Your task to perform on an android device: Add "logitech g903" to the cart on newegg.com, then select checkout. Image 0: 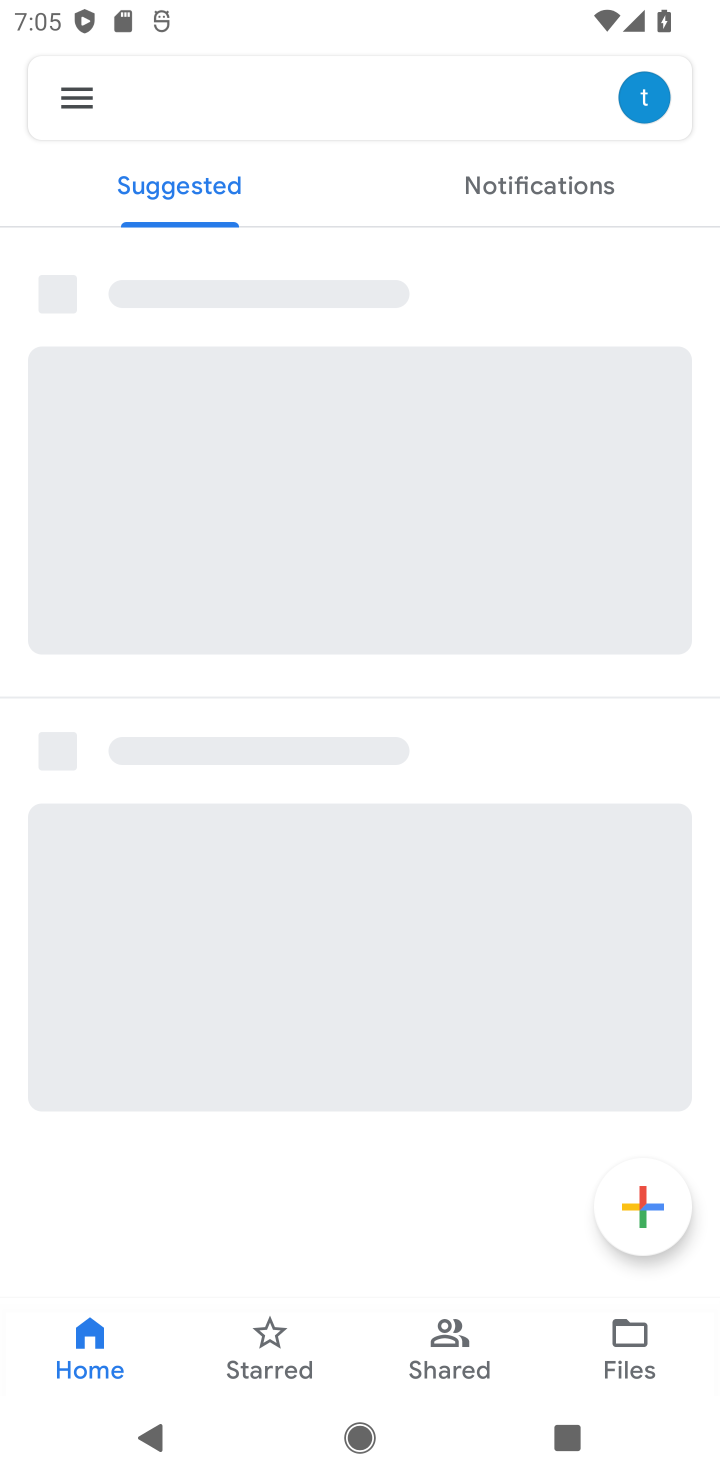
Step 0: press home button
Your task to perform on an android device: Add "logitech g903" to the cart on newegg.com, then select checkout. Image 1: 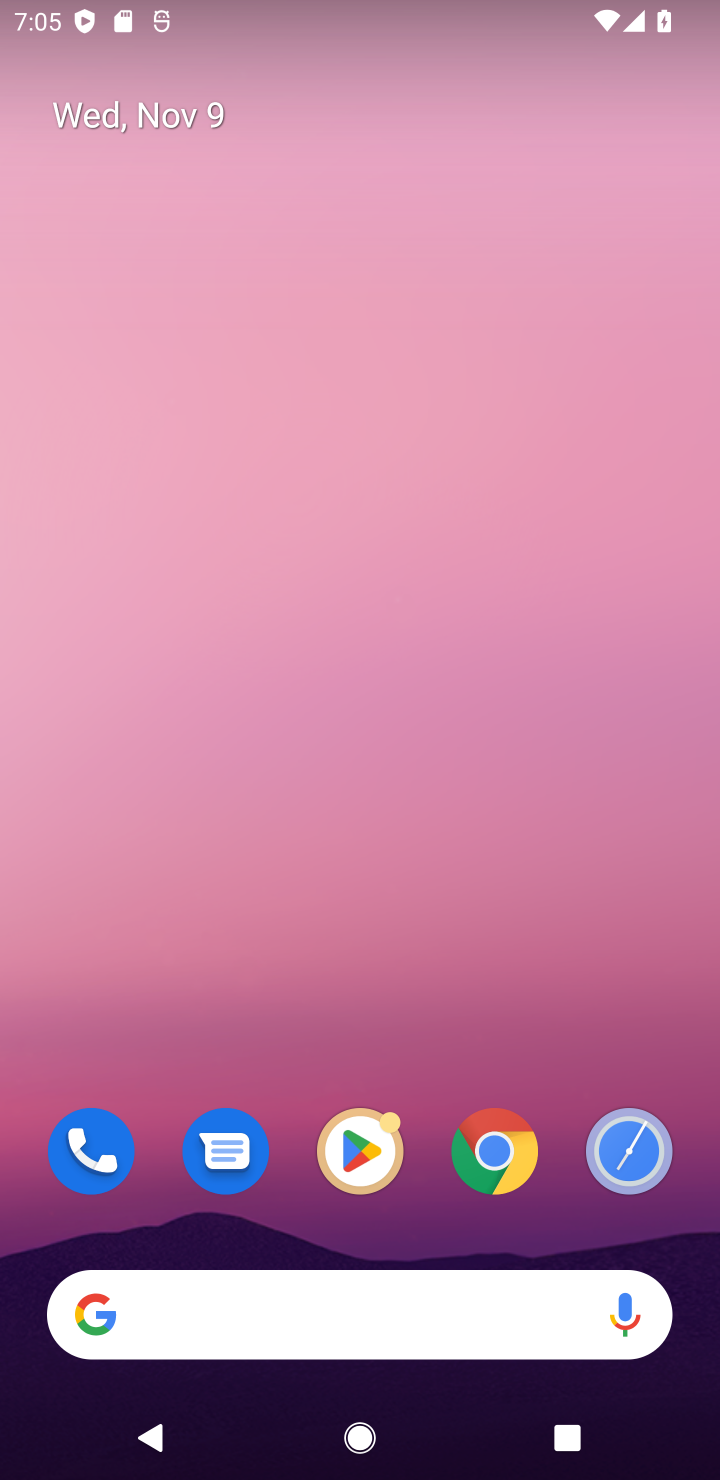
Step 1: drag from (338, 589) to (244, 209)
Your task to perform on an android device: Add "logitech g903" to the cart on newegg.com, then select checkout. Image 2: 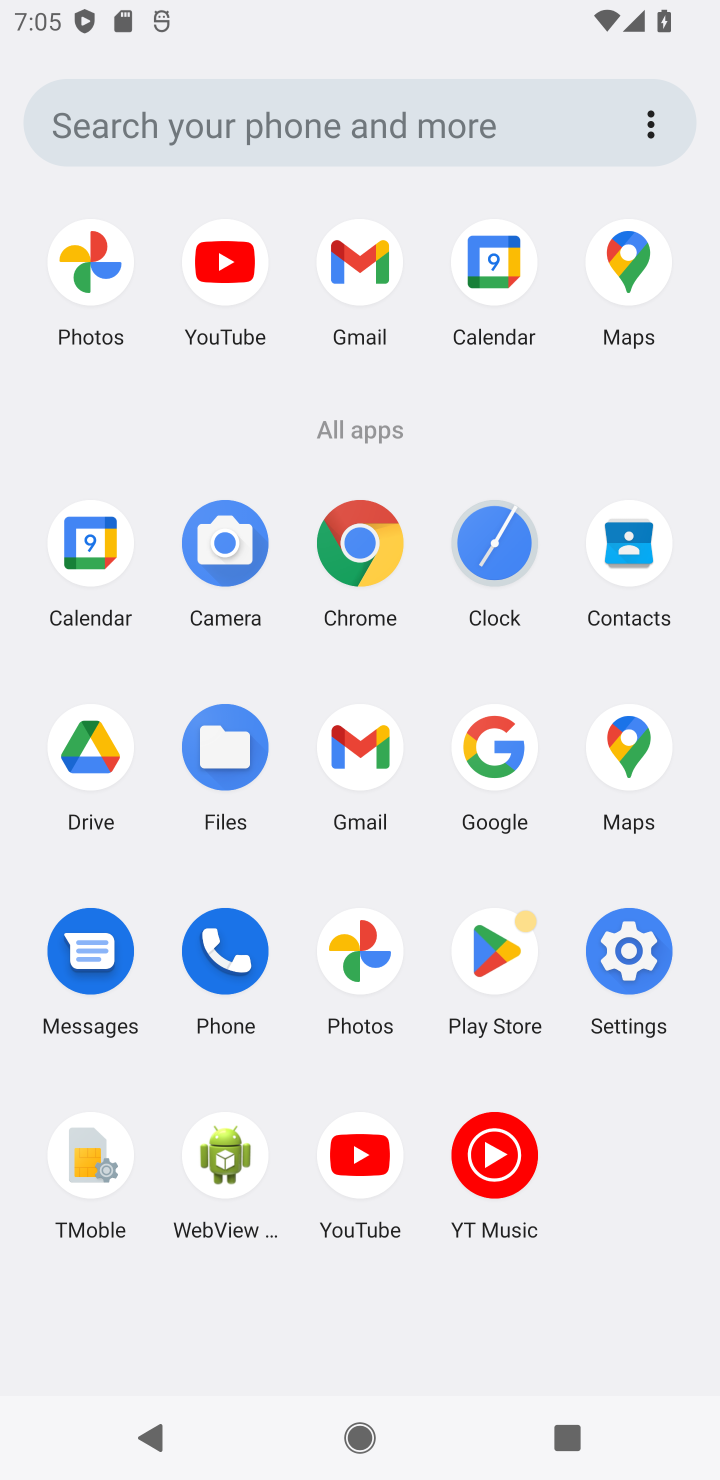
Step 2: click (376, 555)
Your task to perform on an android device: Add "logitech g903" to the cart on newegg.com, then select checkout. Image 3: 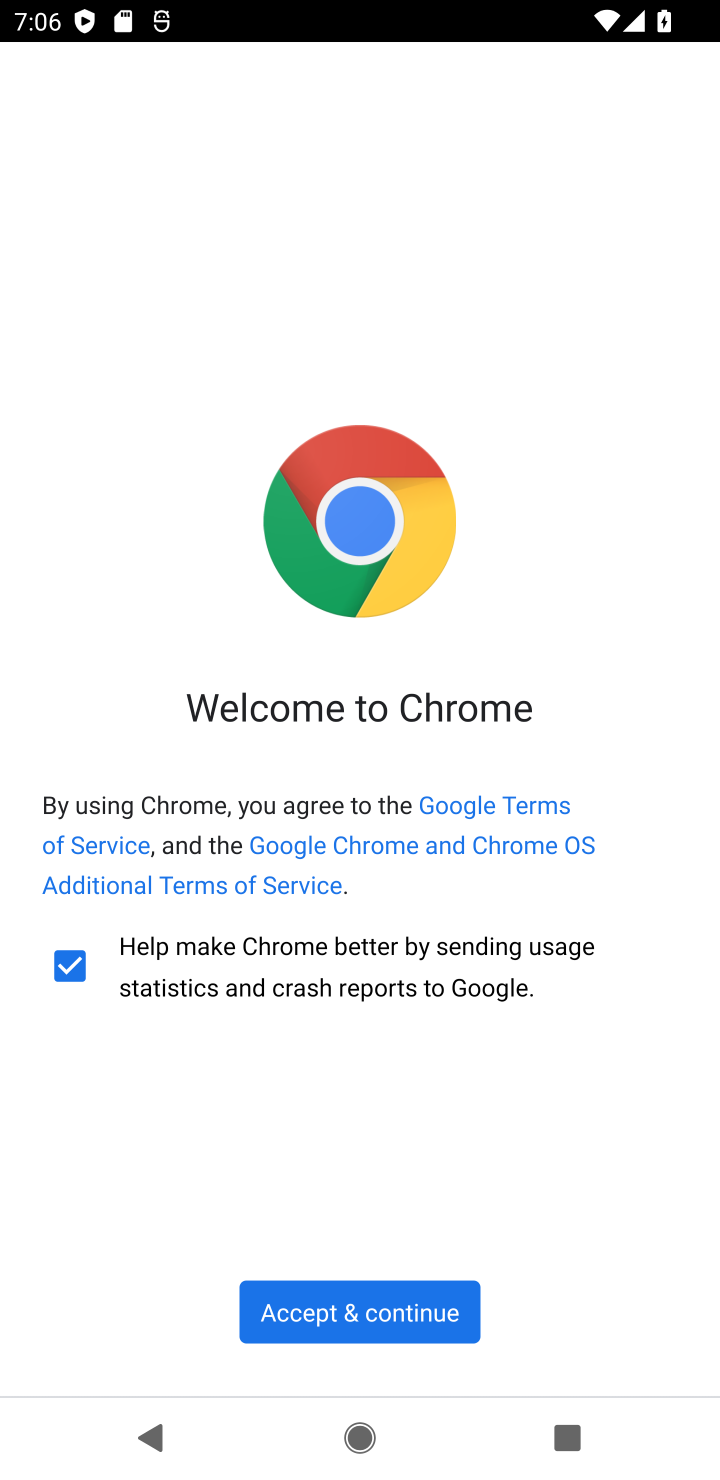
Step 3: click (418, 1338)
Your task to perform on an android device: Add "logitech g903" to the cart on newegg.com, then select checkout. Image 4: 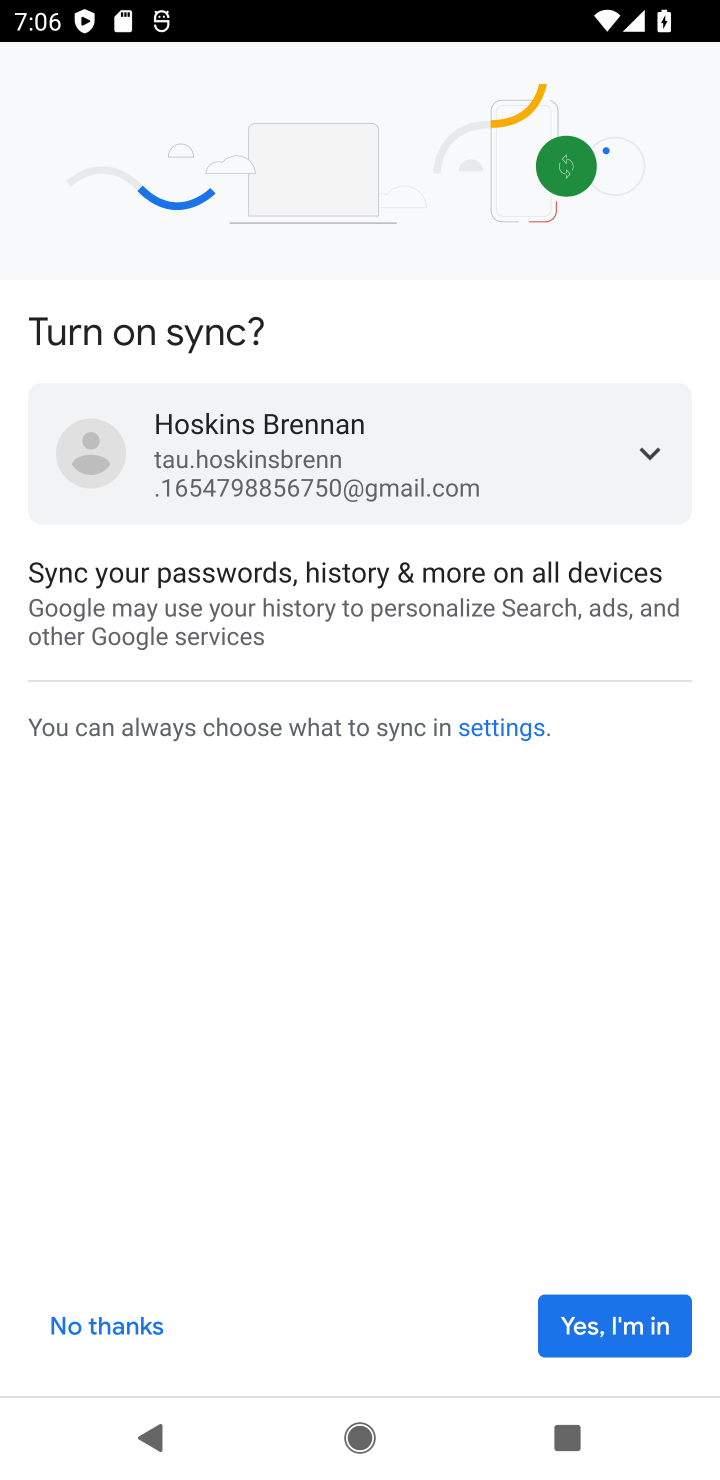
Step 4: click (602, 1339)
Your task to perform on an android device: Add "logitech g903" to the cart on newegg.com, then select checkout. Image 5: 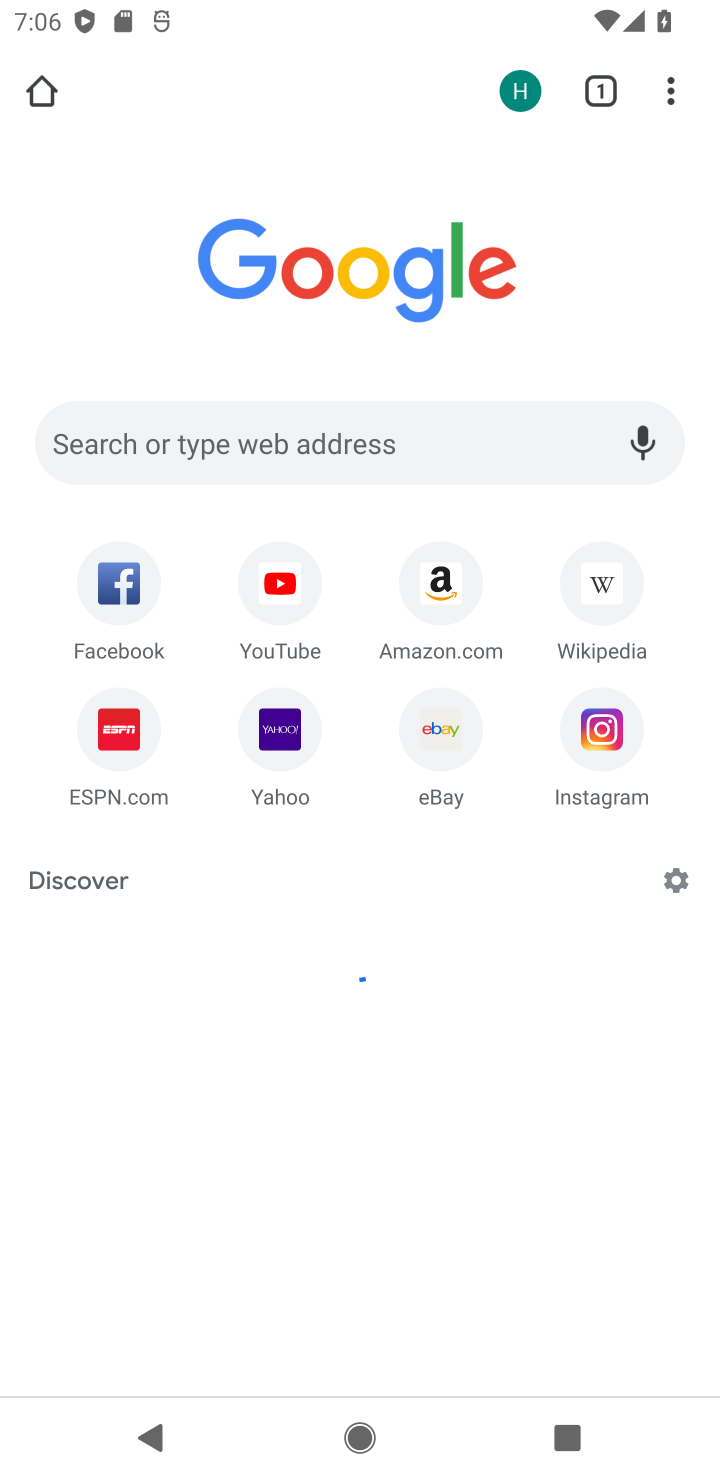
Step 5: click (168, 477)
Your task to perform on an android device: Add "logitech g903" to the cart on newegg.com, then select checkout. Image 6: 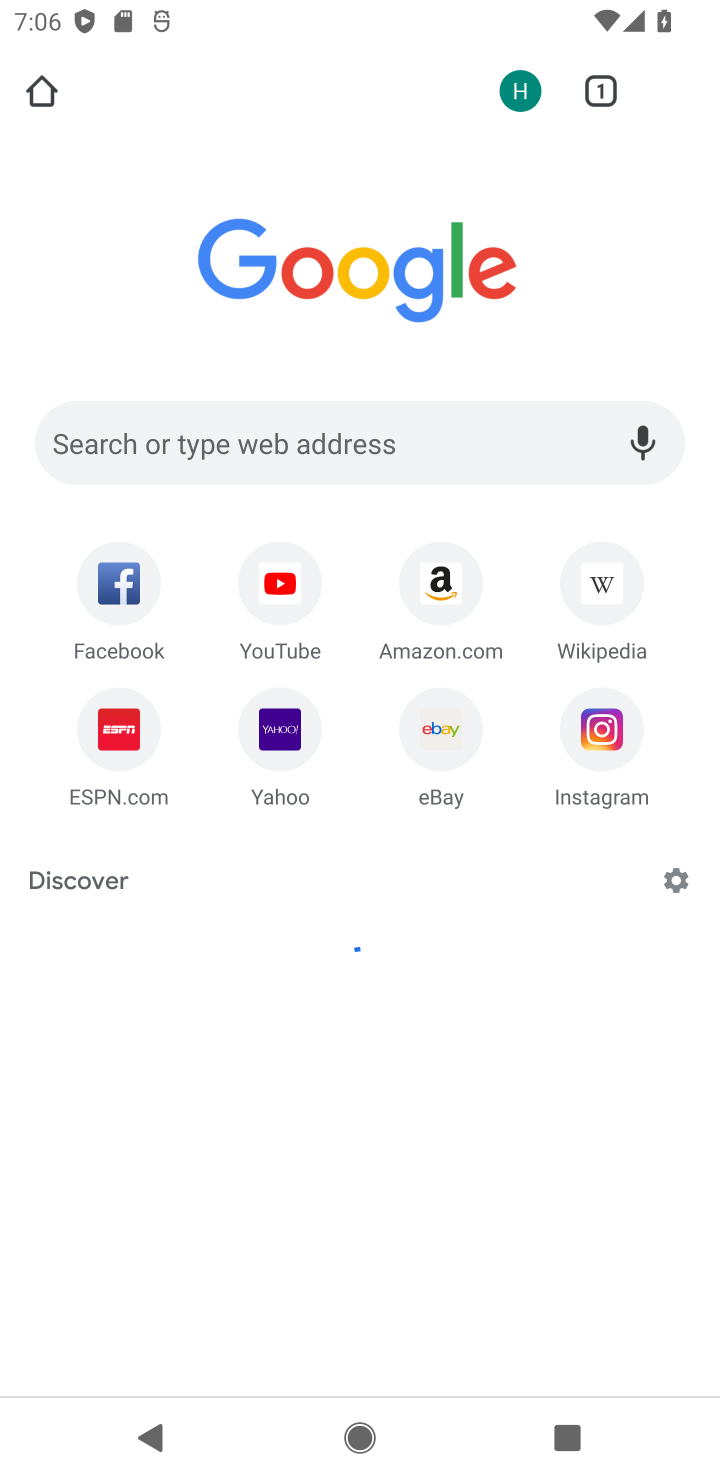
Step 6: click (194, 429)
Your task to perform on an android device: Add "logitech g903" to the cart on newegg.com, then select checkout. Image 7: 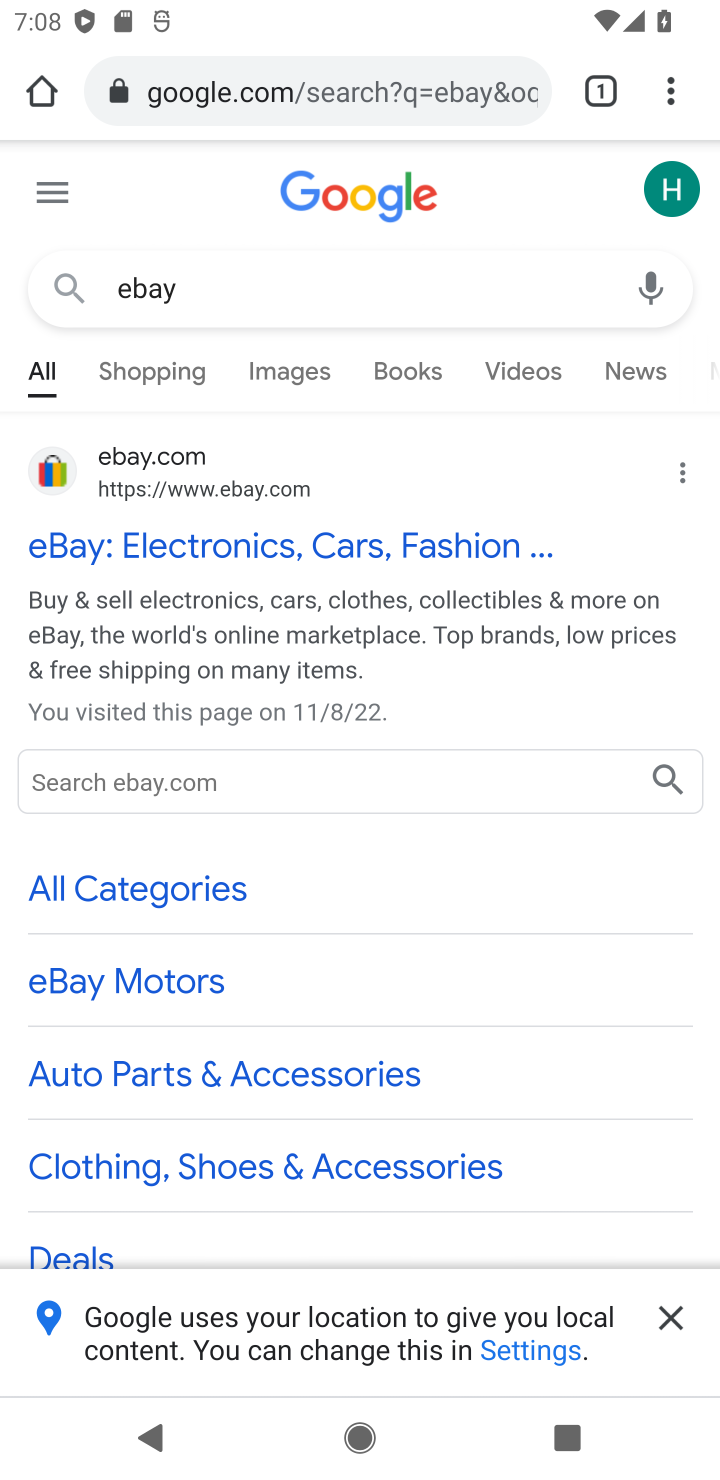
Step 7: click (246, 98)
Your task to perform on an android device: Add "logitech g903" to the cart on newegg.com, then select checkout. Image 8: 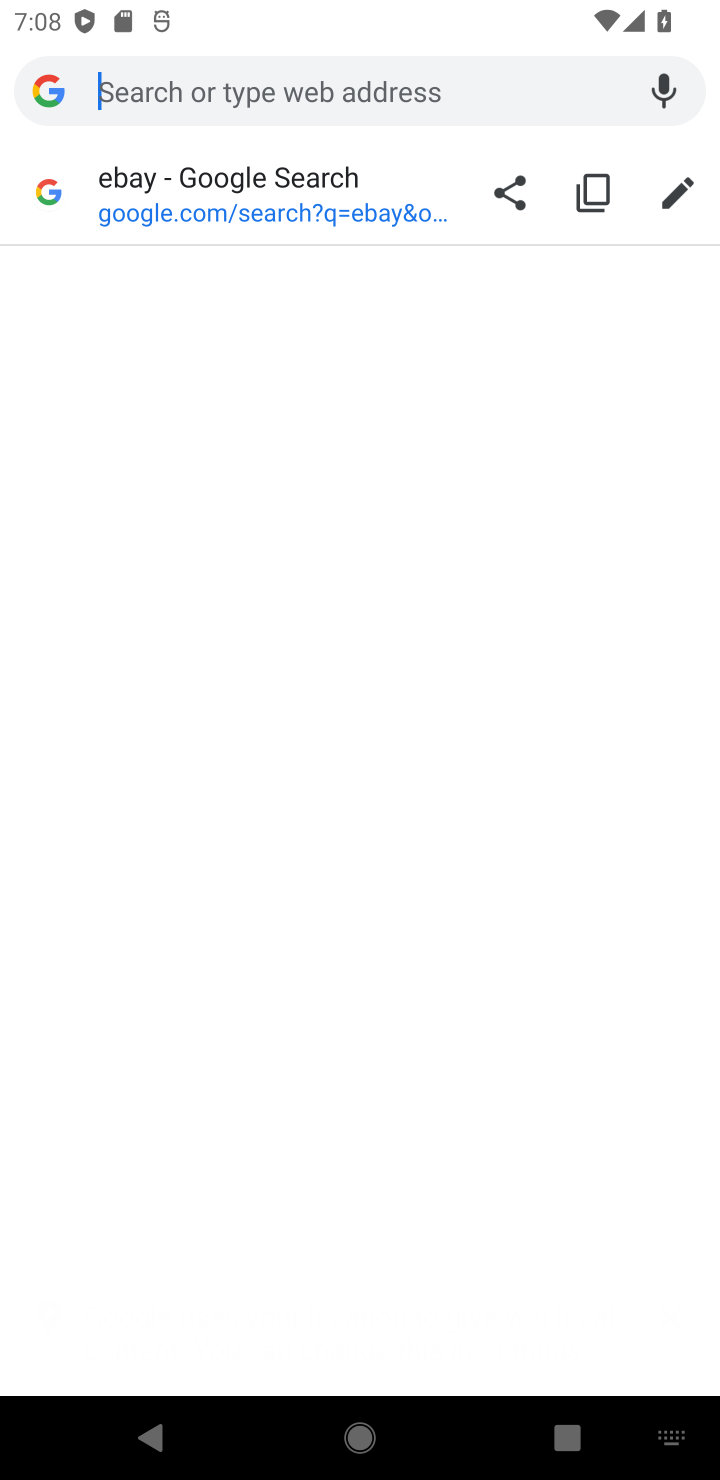
Step 8: type " newegg.com"
Your task to perform on an android device: Add "logitech g903" to the cart on newegg.com, then select checkout. Image 9: 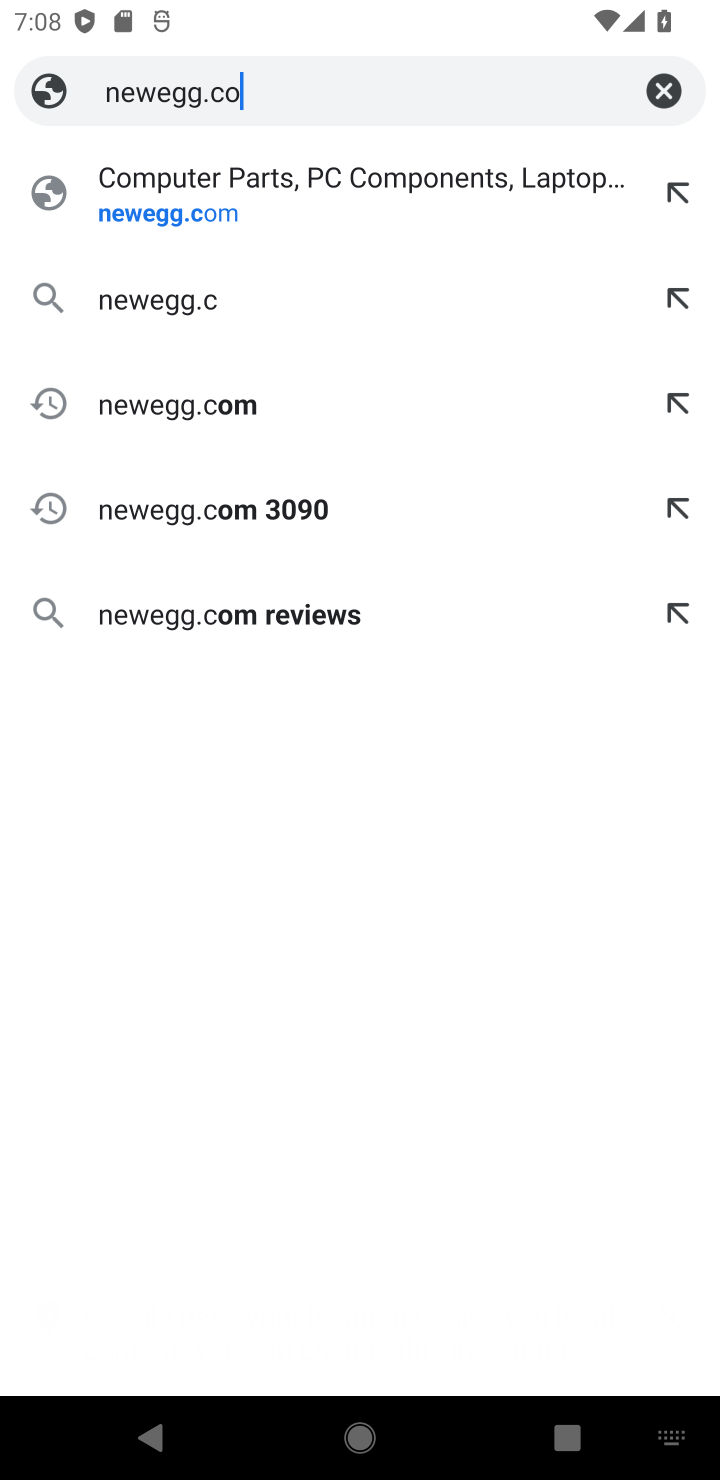
Step 9: press enter
Your task to perform on an android device: Add "logitech g903" to the cart on newegg.com, then select checkout. Image 10: 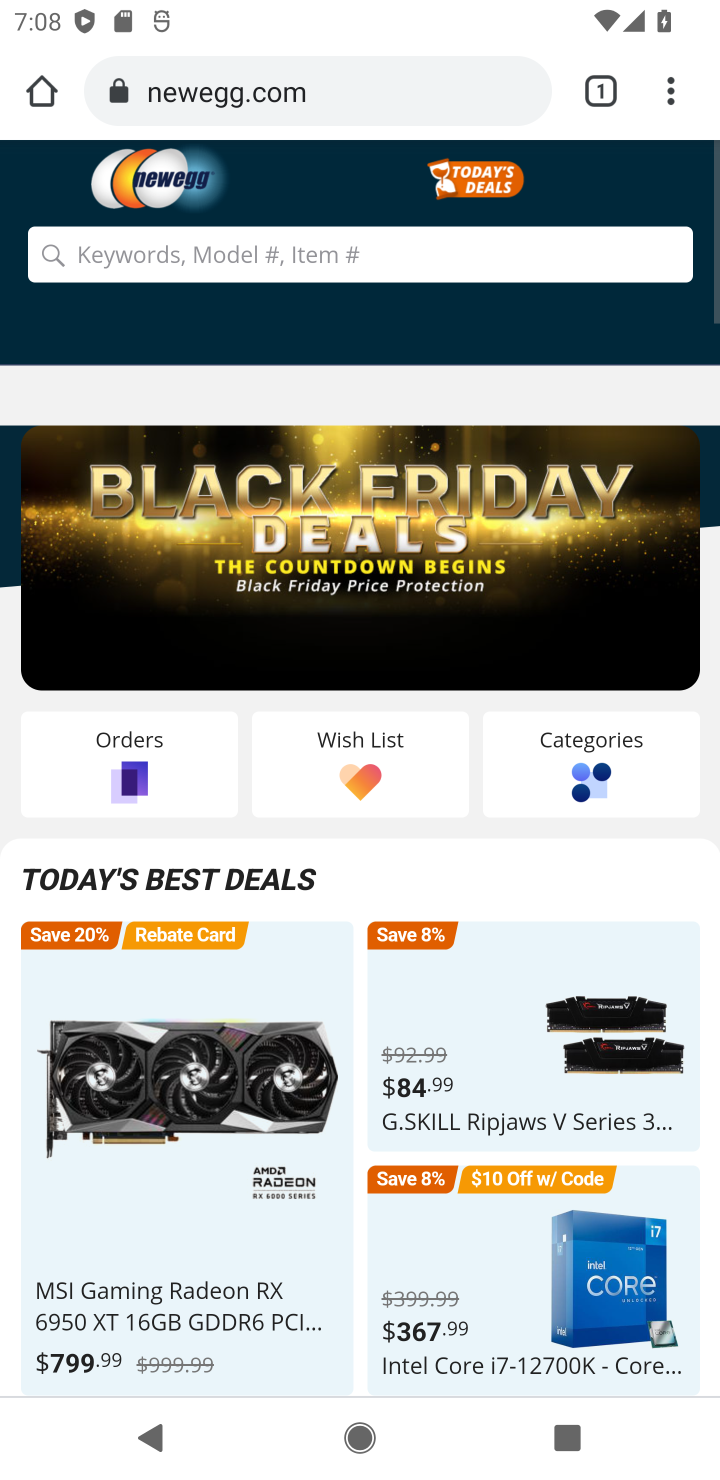
Step 10: click (234, 250)
Your task to perform on an android device: Add "logitech g903" to the cart on newegg.com, then select checkout. Image 11: 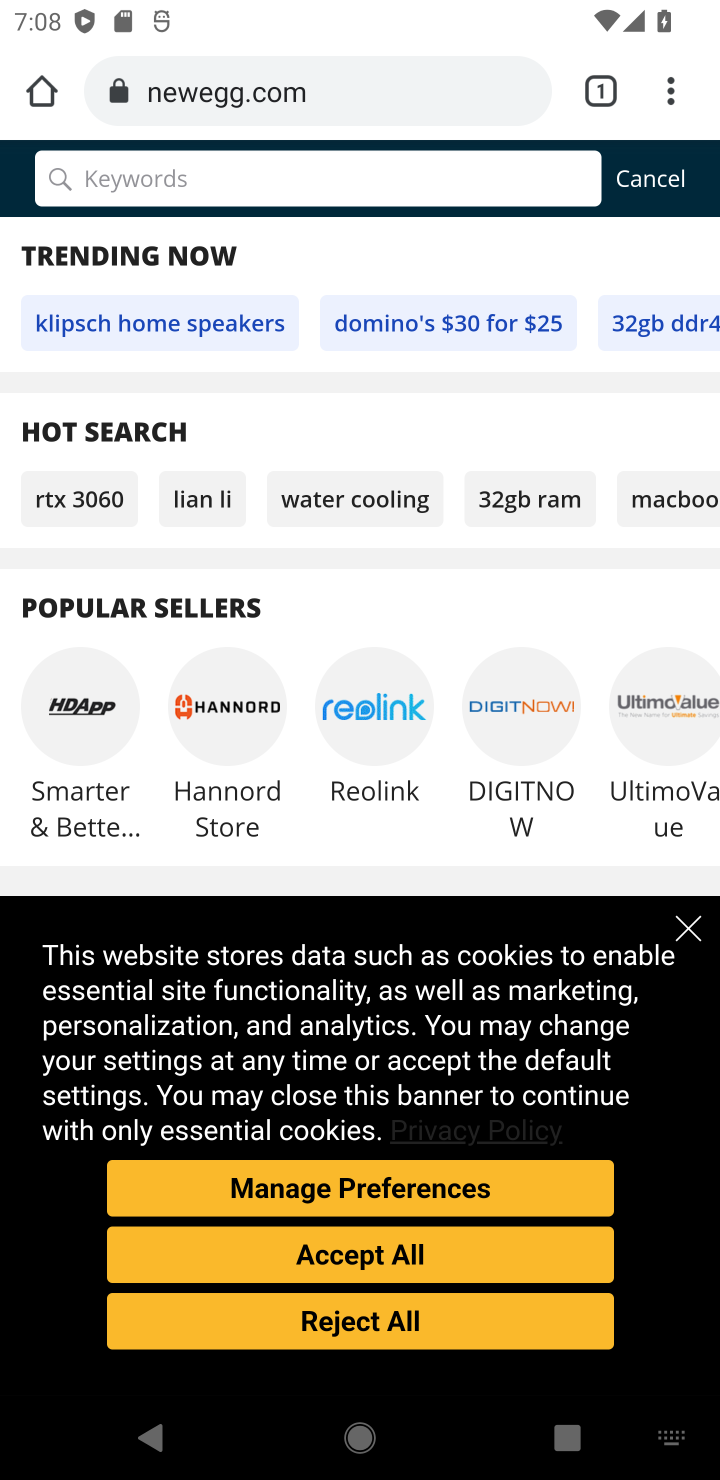
Step 11: press enter
Your task to perform on an android device: Add "logitech g903" to the cart on newegg.com, then select checkout. Image 12: 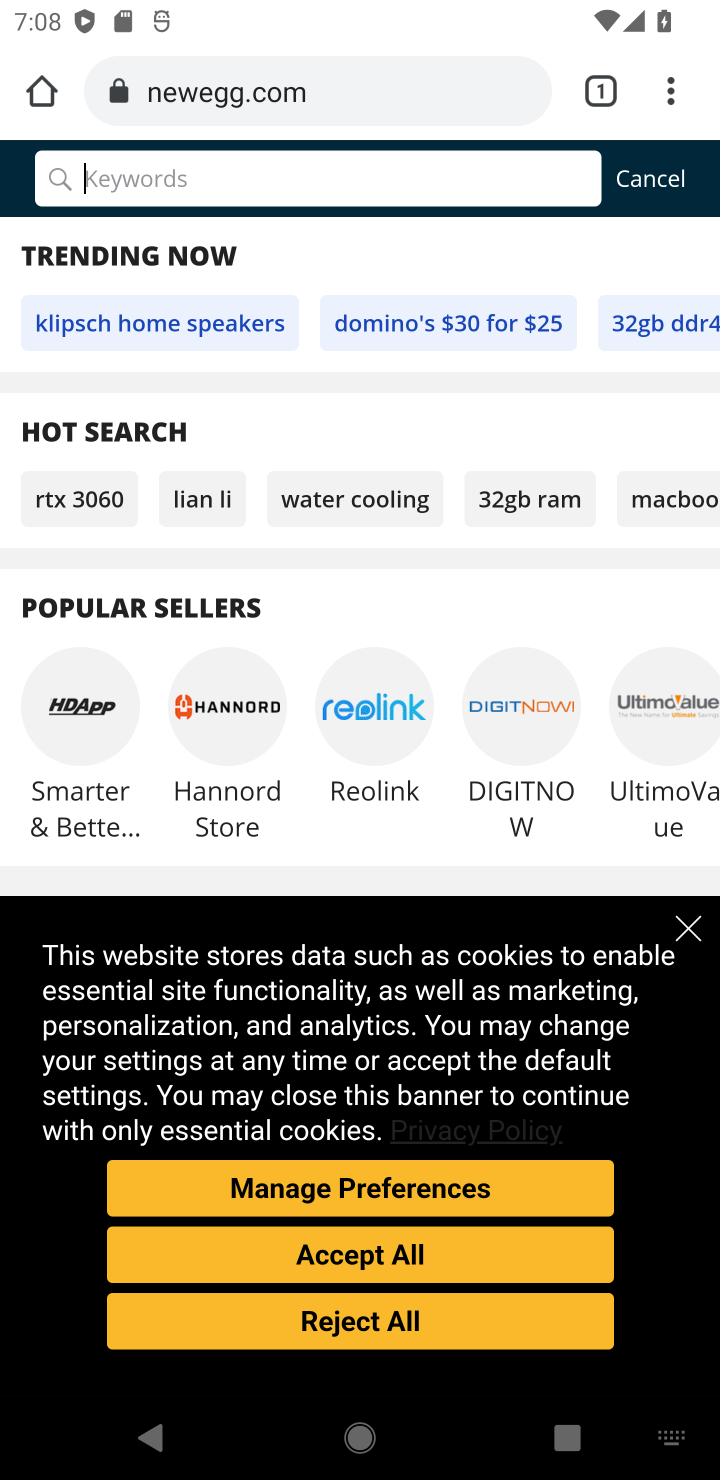
Step 12: type "logitech g903""
Your task to perform on an android device: Add "logitech g903" to the cart on newegg.com, then select checkout. Image 13: 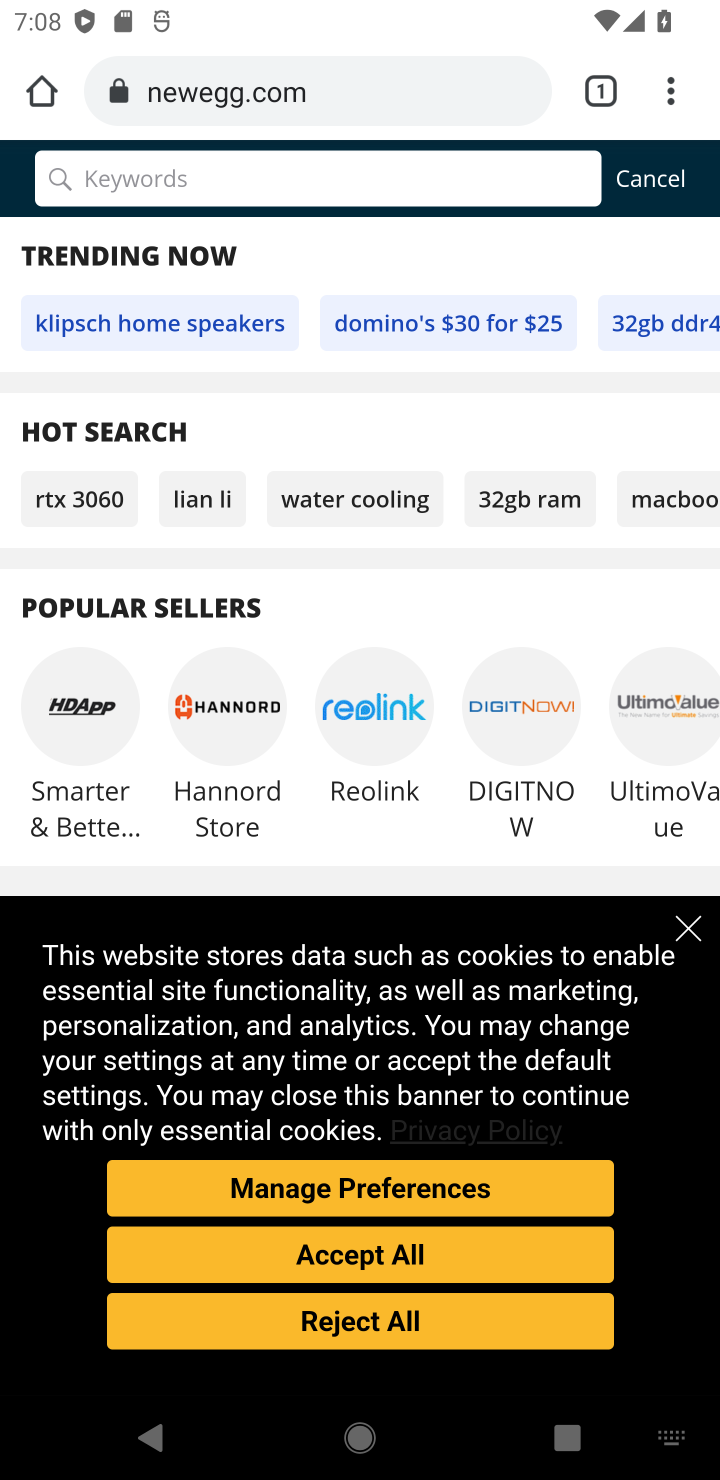
Step 13: type "logitech g903""
Your task to perform on an android device: Add "logitech g903" to the cart on newegg.com, then select checkout. Image 14: 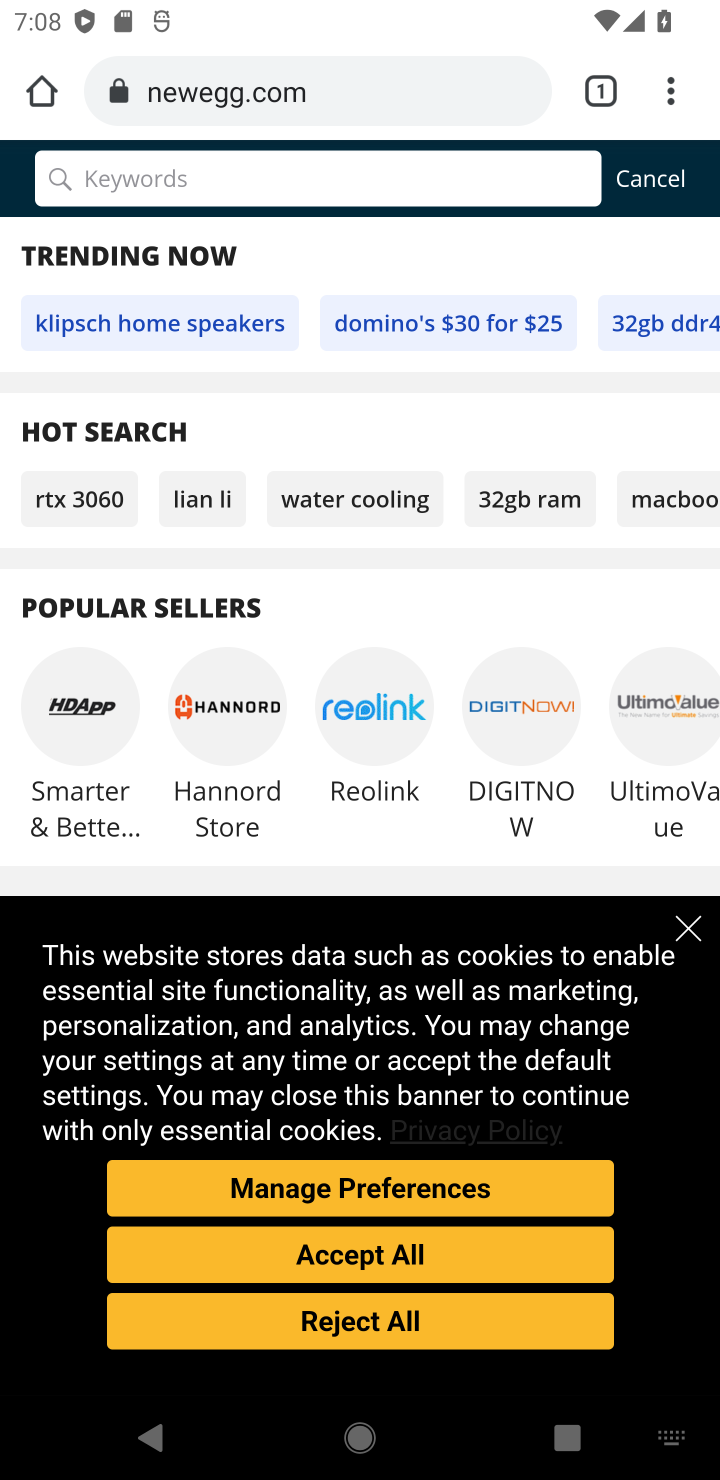
Step 14: press enter
Your task to perform on an android device: Add "logitech g903" to the cart on newegg.com, then select checkout. Image 15: 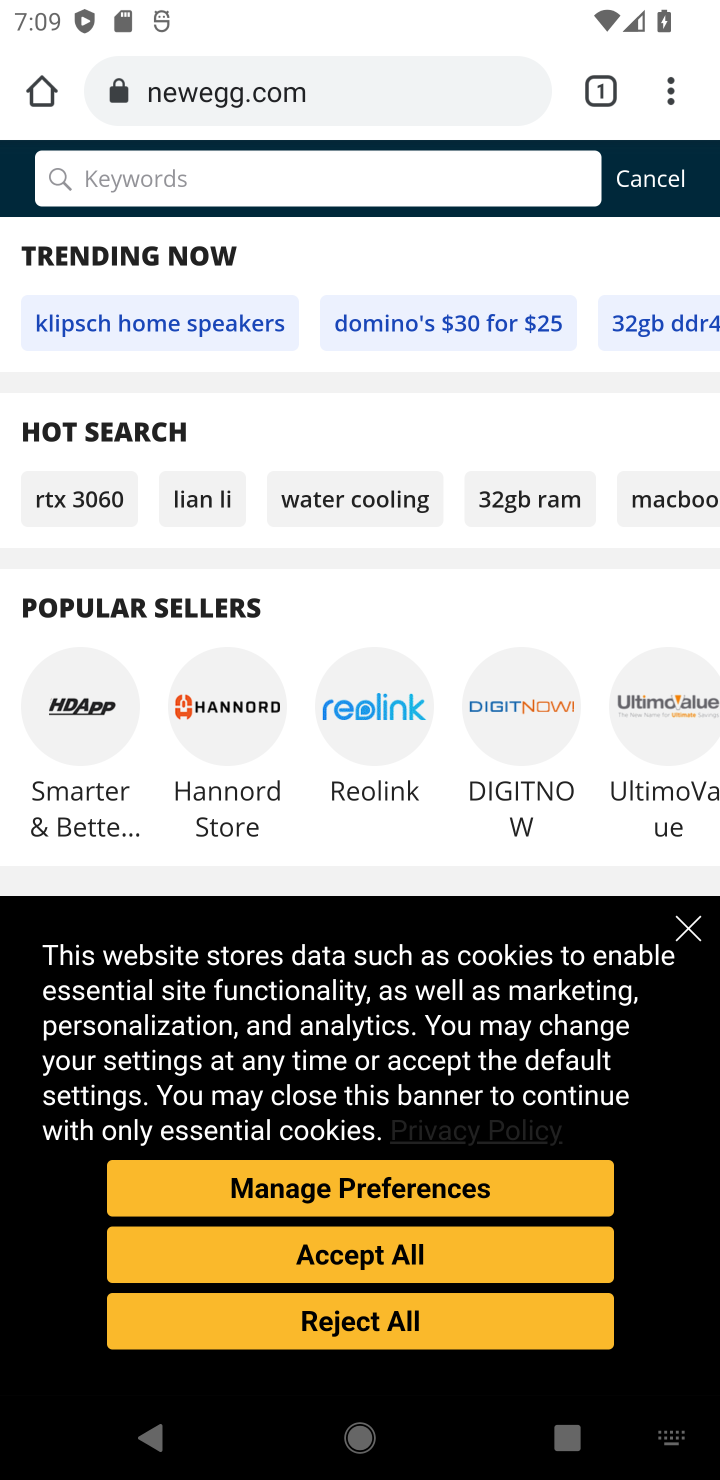
Step 15: type "logitech g903"
Your task to perform on an android device: Add "logitech g903" to the cart on newegg.com, then select checkout. Image 16: 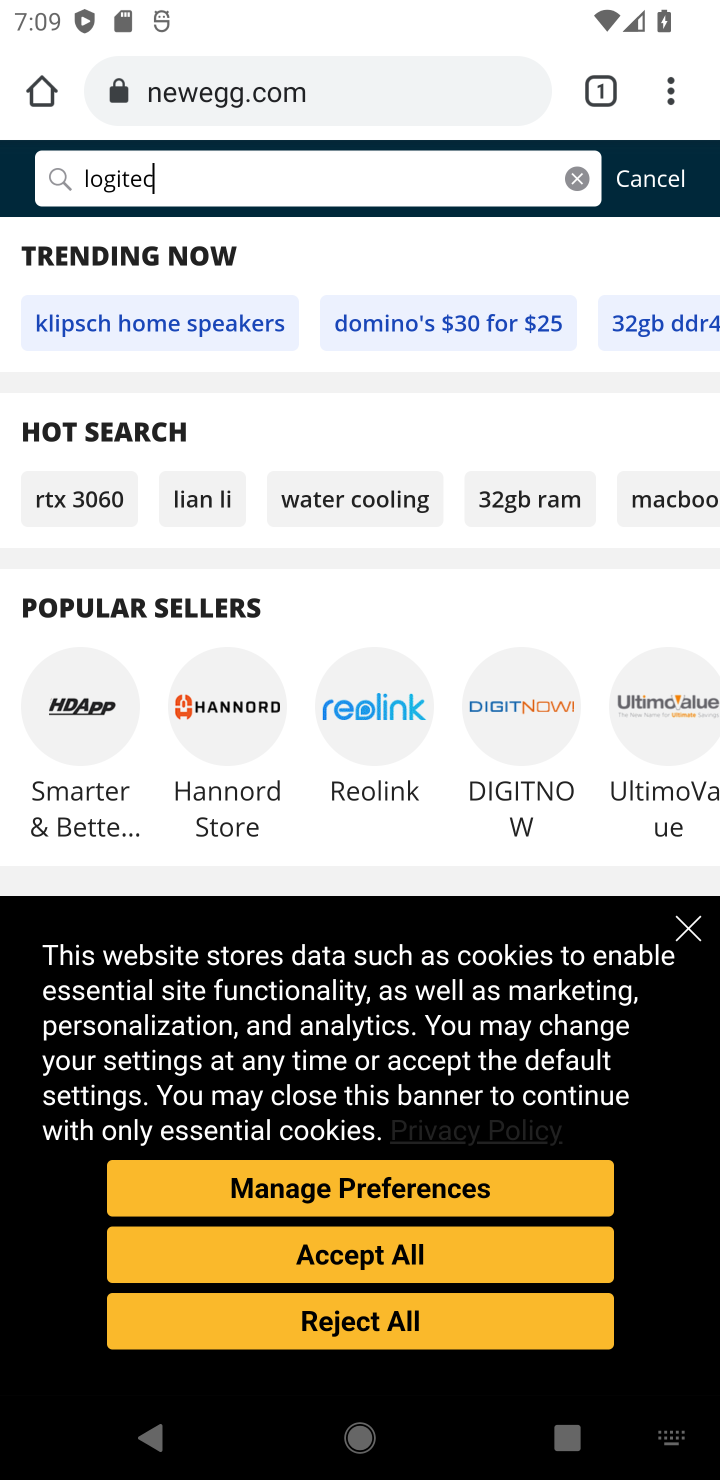
Step 16: press enter
Your task to perform on an android device: Add "logitech g903" to the cart on newegg.com, then select checkout. Image 17: 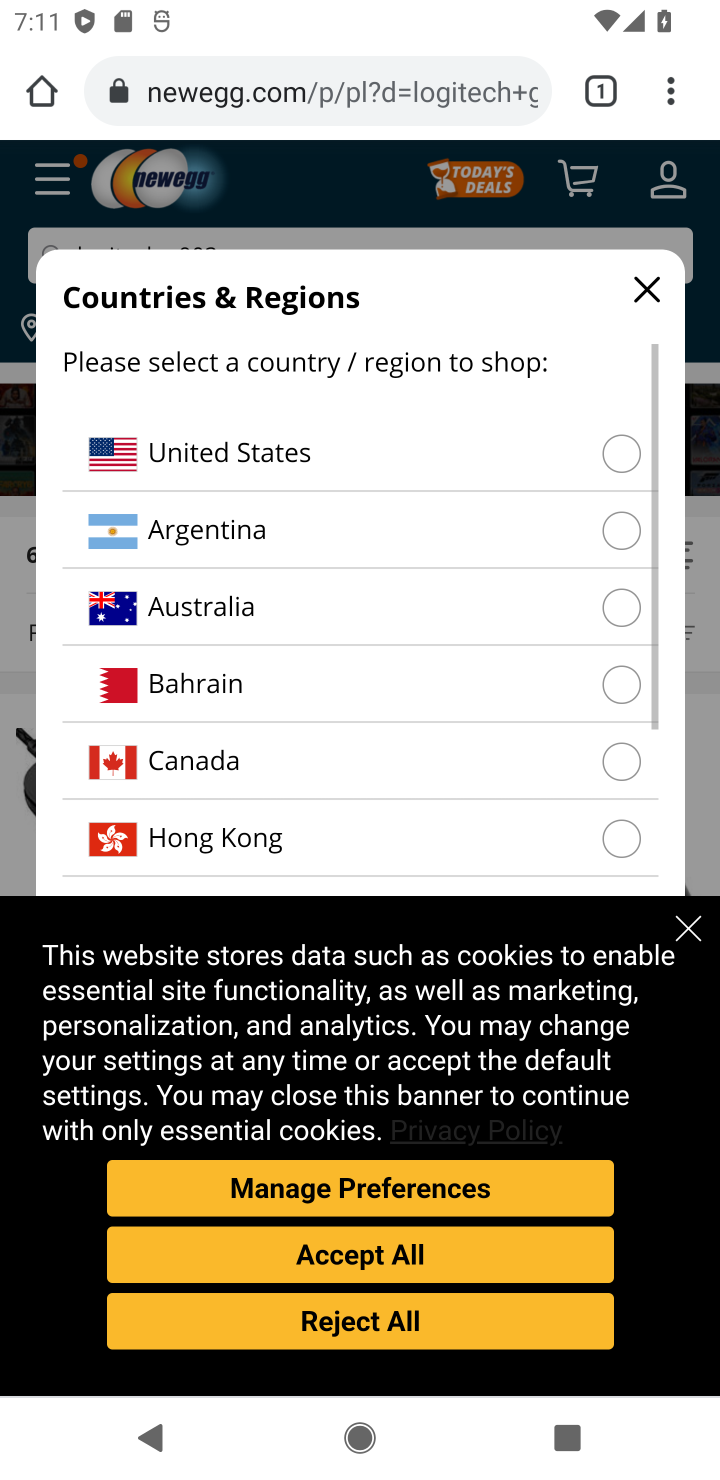
Step 17: click (391, 1246)
Your task to perform on an android device: Add "logitech g903" to the cart on newegg.com, then select checkout. Image 18: 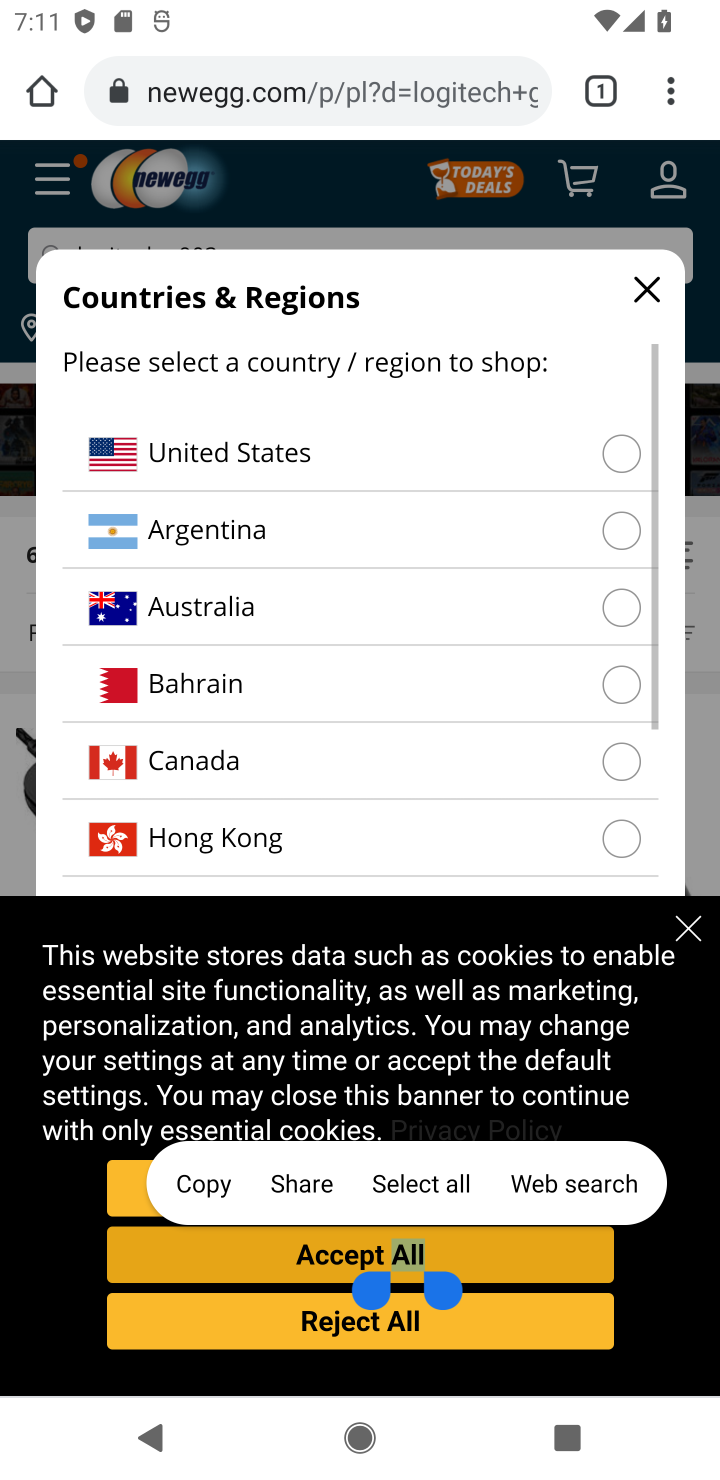
Step 18: click (354, 1252)
Your task to perform on an android device: Add "logitech g903" to the cart on newegg.com, then select checkout. Image 19: 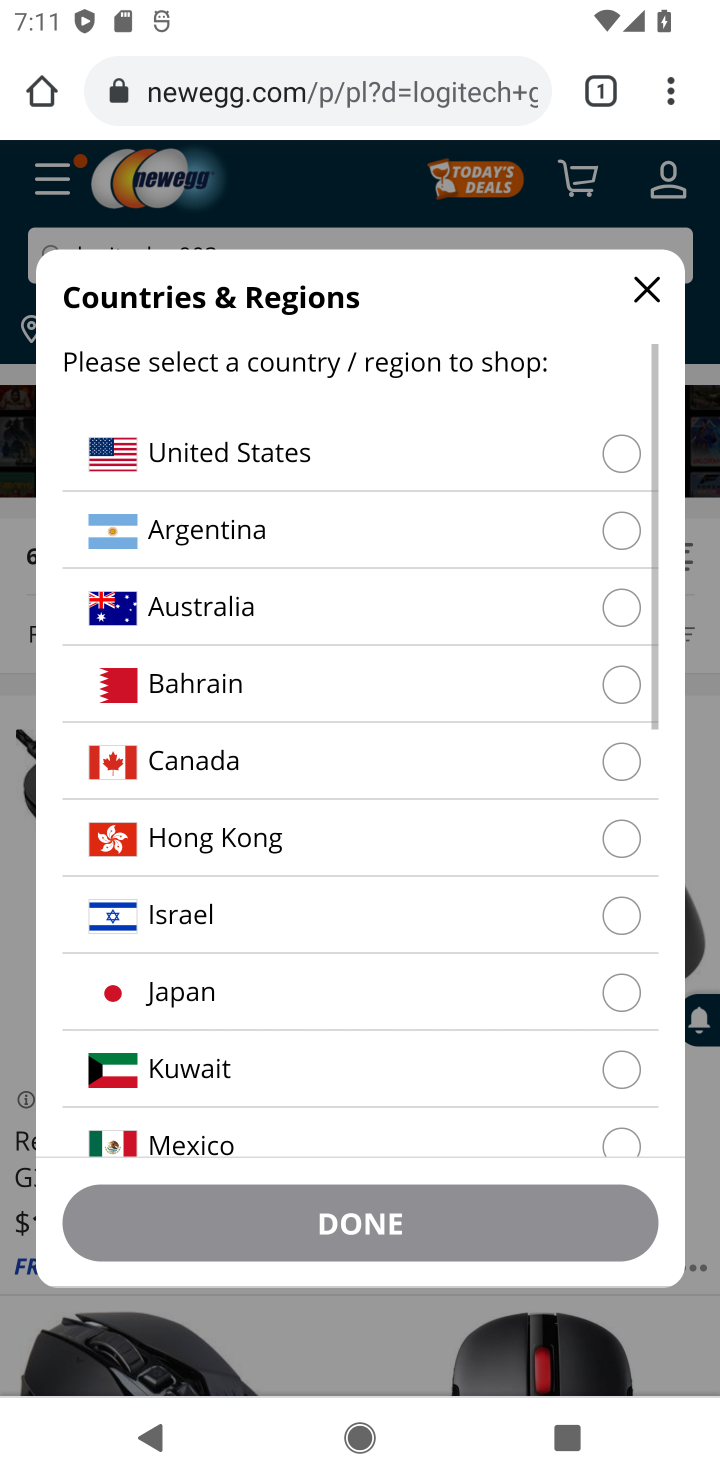
Step 19: click (364, 456)
Your task to perform on an android device: Add "logitech g903" to the cart on newegg.com, then select checkout. Image 20: 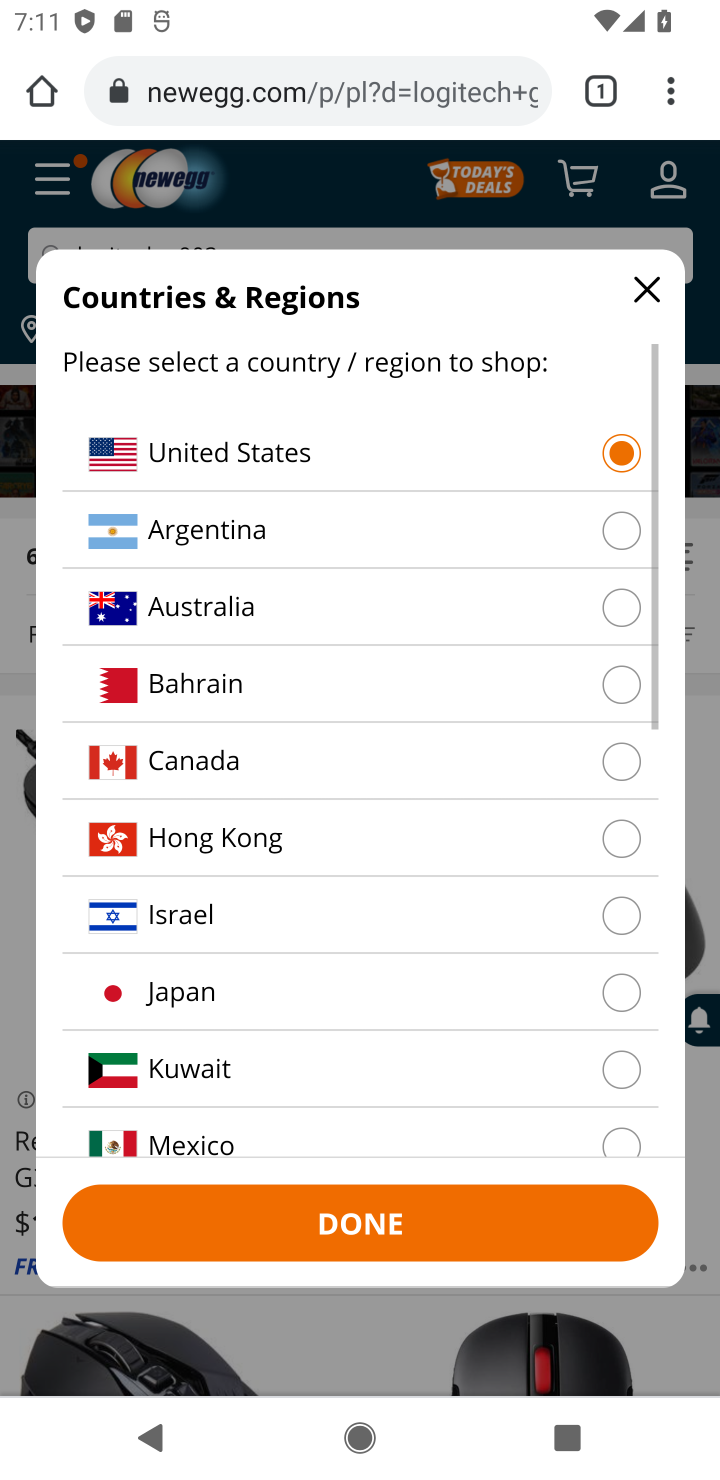
Step 20: click (354, 1246)
Your task to perform on an android device: Add "logitech g903" to the cart on newegg.com, then select checkout. Image 21: 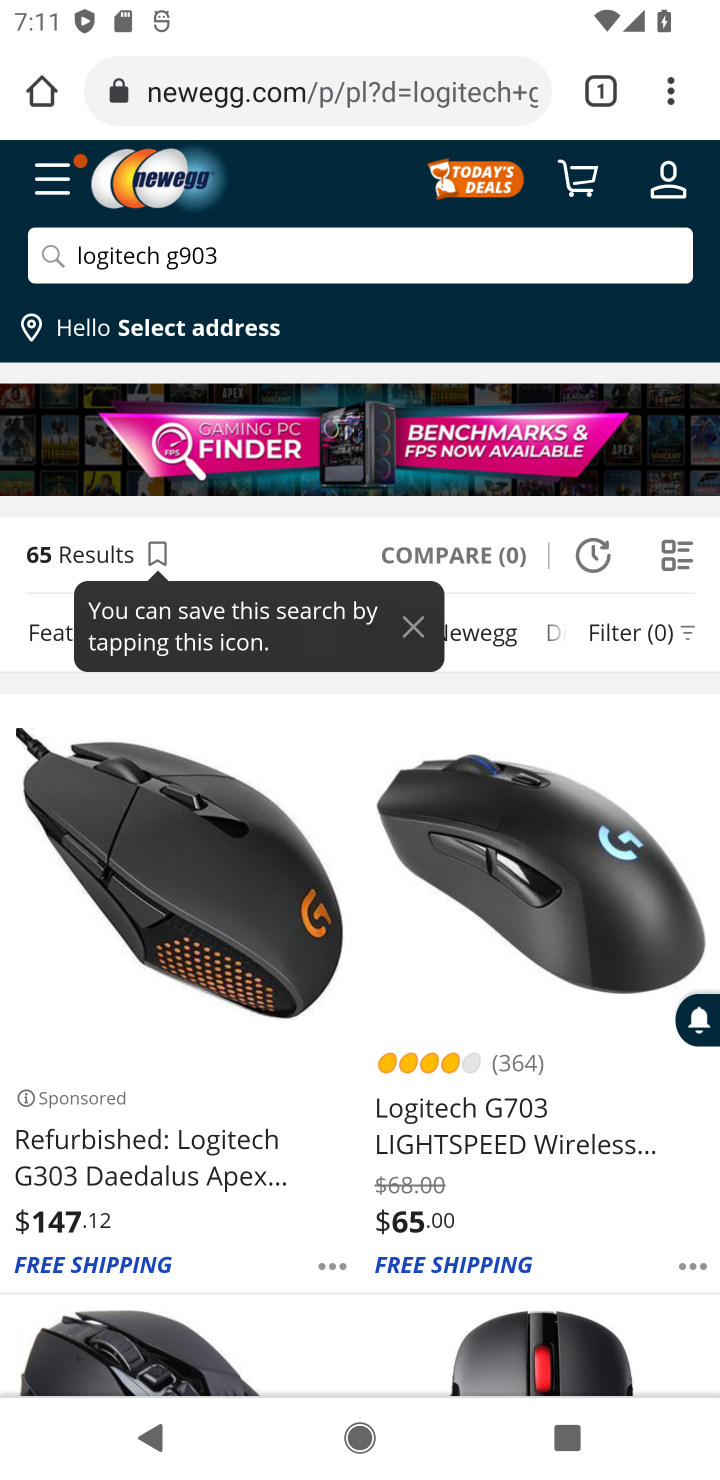
Step 21: drag from (244, 903) to (228, 838)
Your task to perform on an android device: Add "logitech g903" to the cart on newegg.com, then select checkout. Image 22: 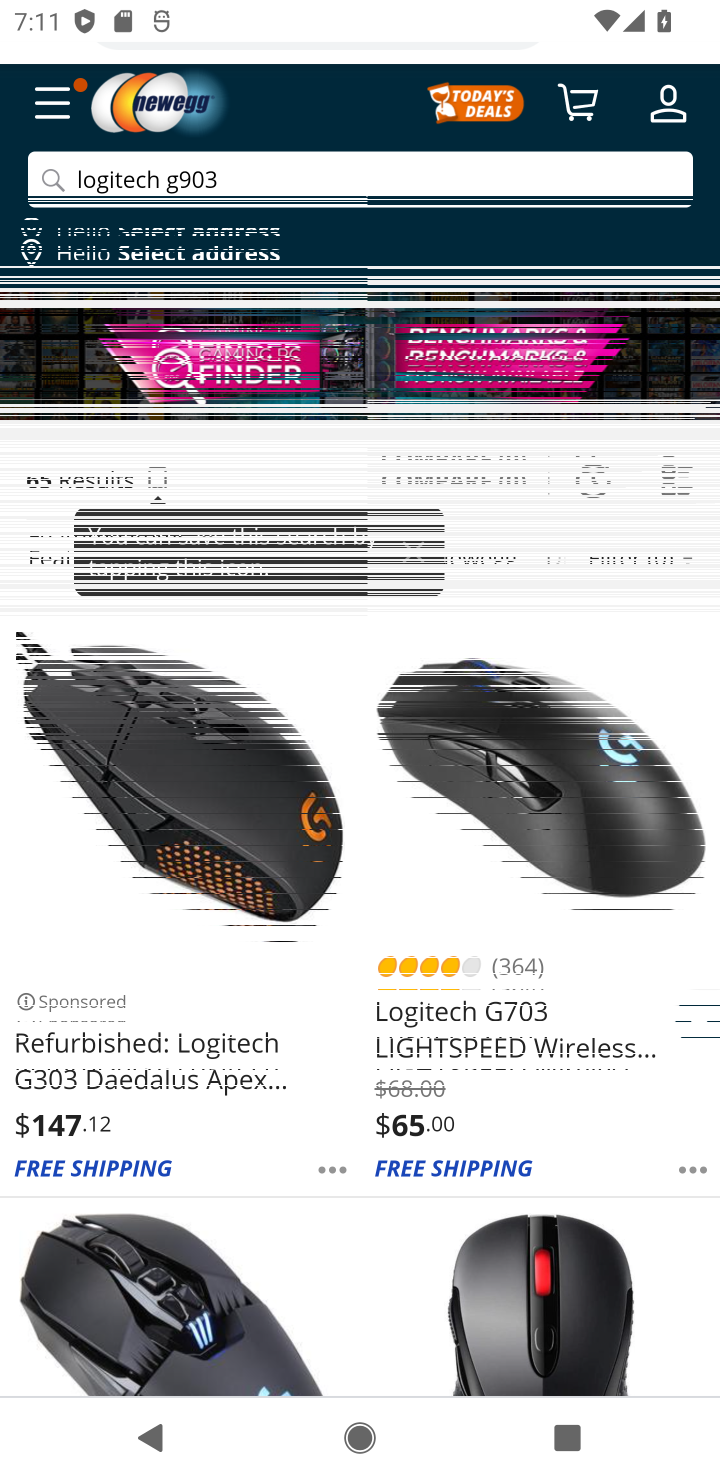
Step 22: click (117, 1109)
Your task to perform on an android device: Add "logitech g903" to the cart on newegg.com, then select checkout. Image 23: 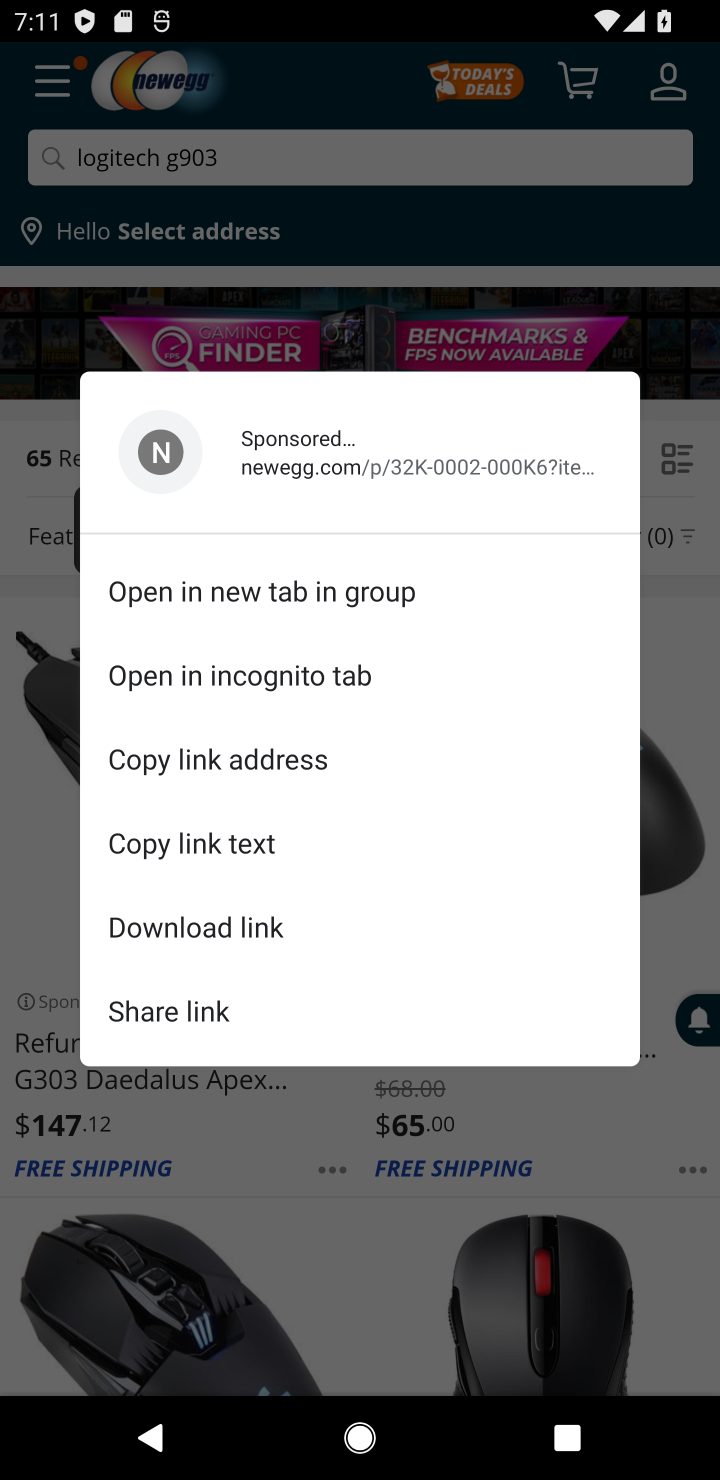
Step 23: click (101, 1081)
Your task to perform on an android device: Add "logitech g903" to the cart on newegg.com, then select checkout. Image 24: 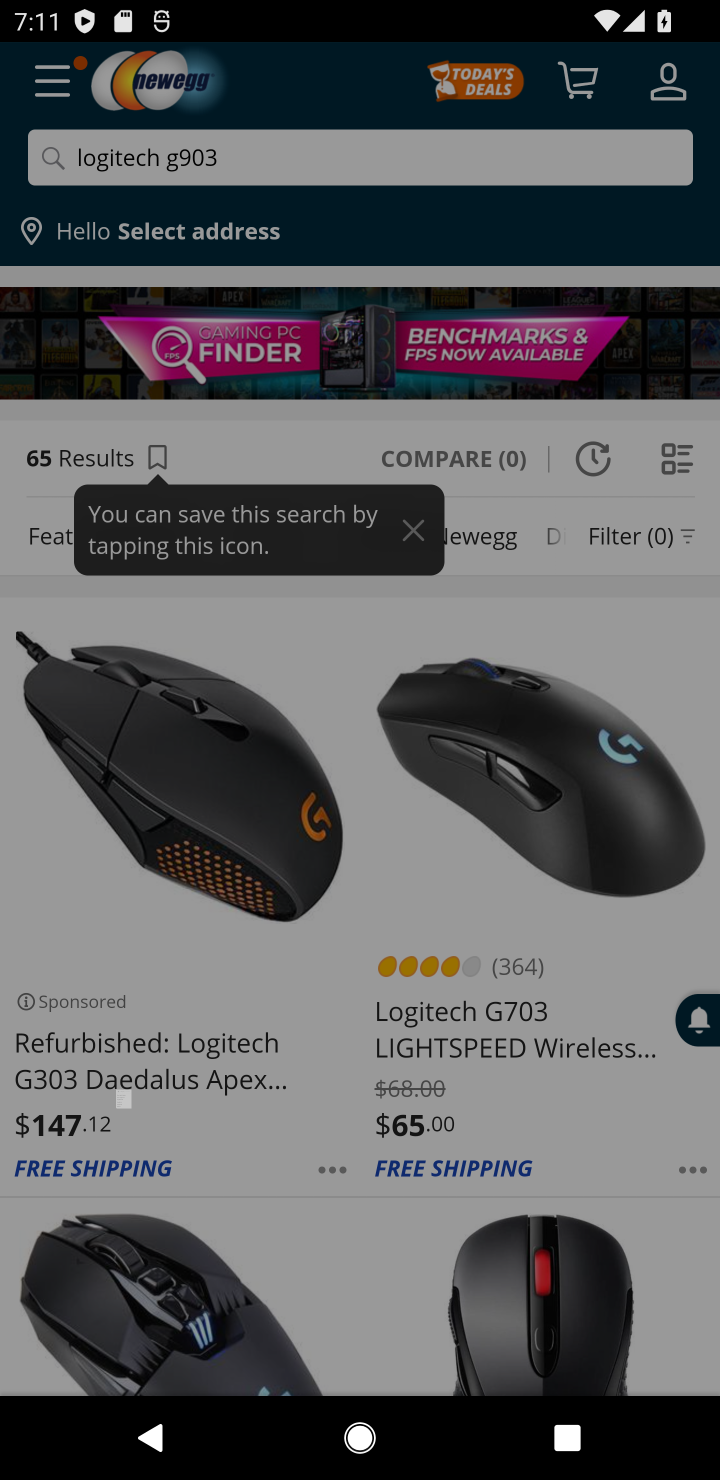
Step 24: click (101, 1081)
Your task to perform on an android device: Add "logitech g903" to the cart on newegg.com, then select checkout. Image 25: 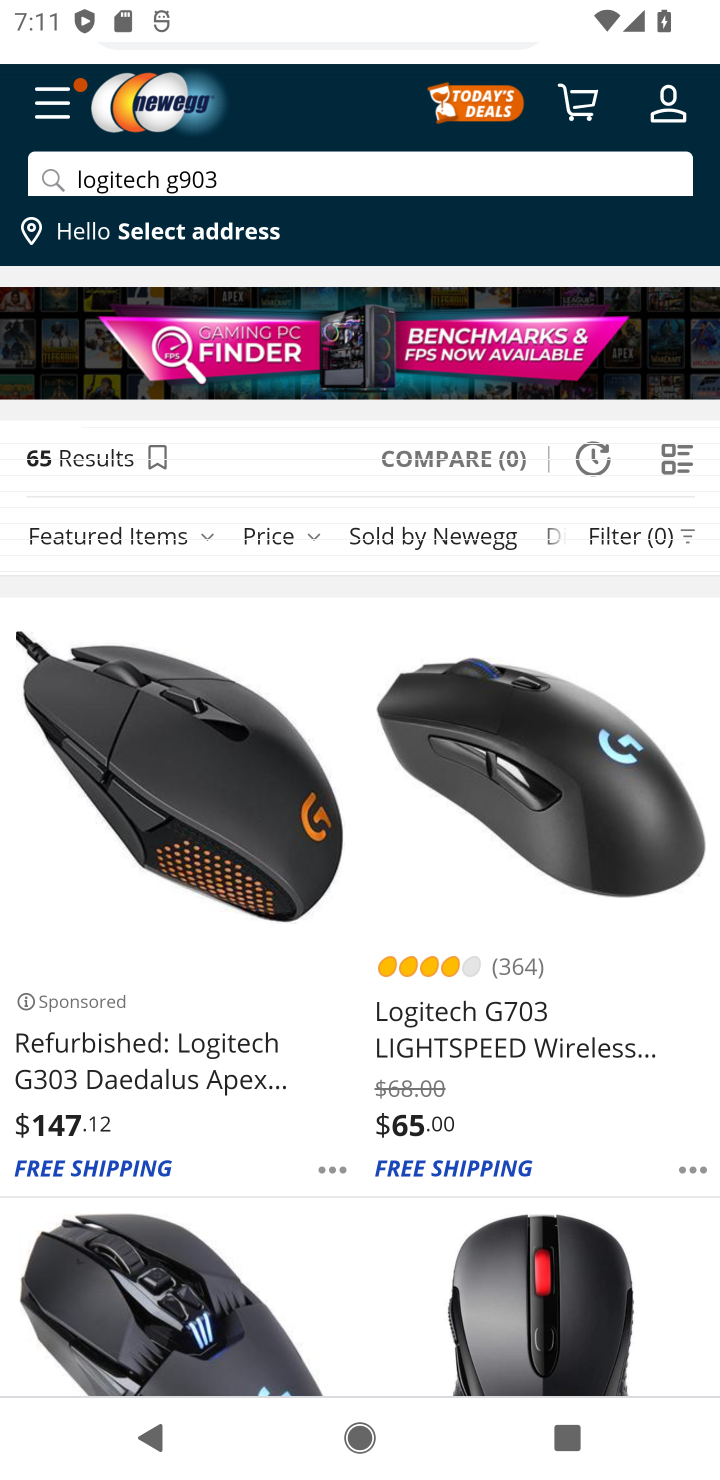
Step 25: click (96, 1071)
Your task to perform on an android device: Add "logitech g903" to the cart on newegg.com, then select checkout. Image 26: 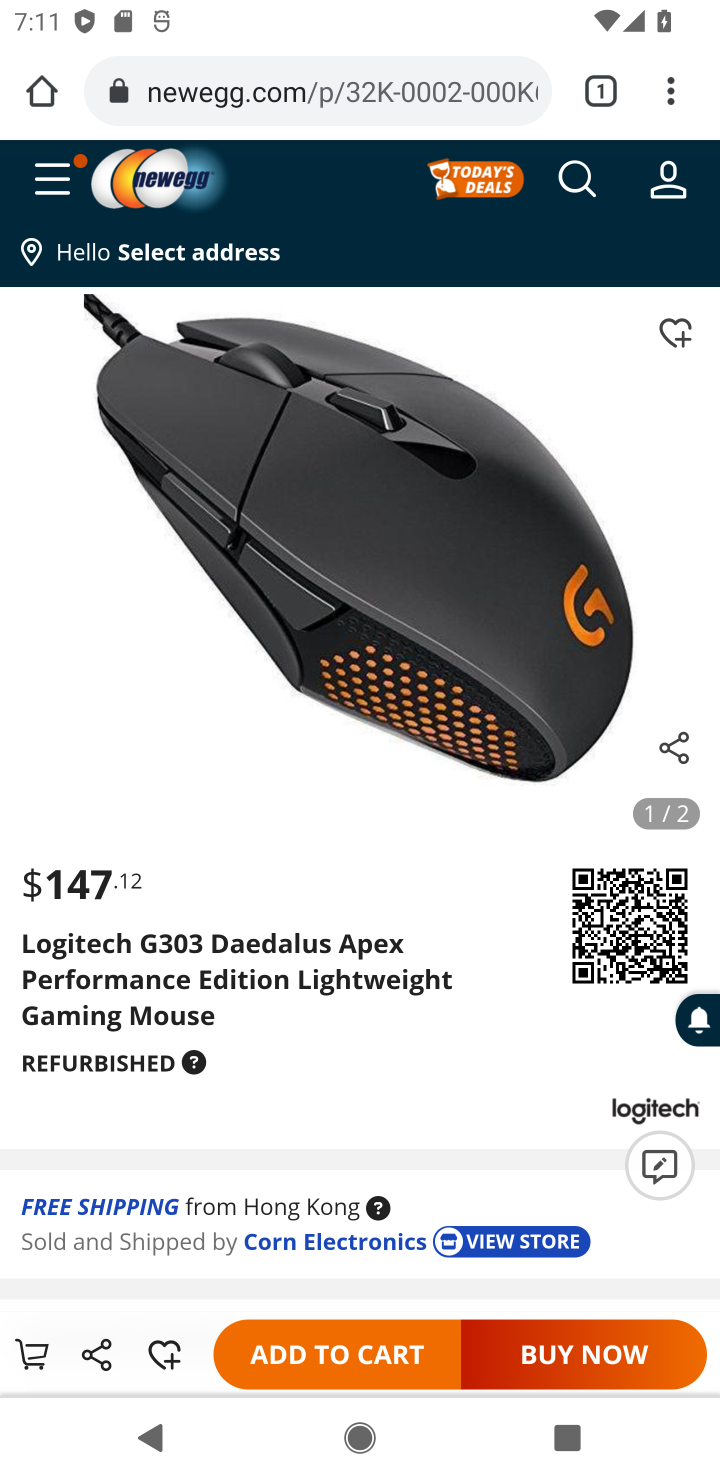
Step 26: drag from (193, 1124) to (161, 778)
Your task to perform on an android device: Add "logitech g903" to the cart on newegg.com, then select checkout. Image 27: 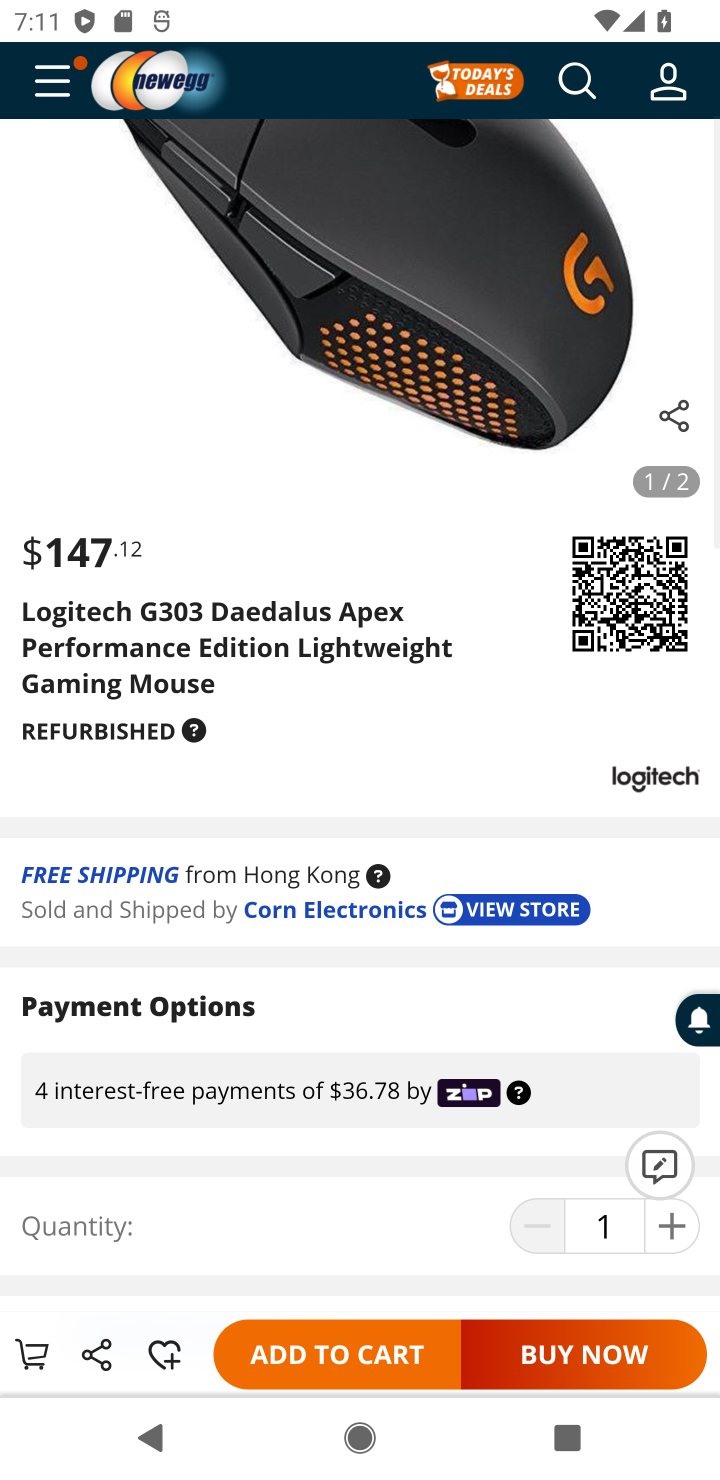
Step 27: click (350, 1351)
Your task to perform on an android device: Add "logitech g903" to the cart on newegg.com, then select checkout. Image 28: 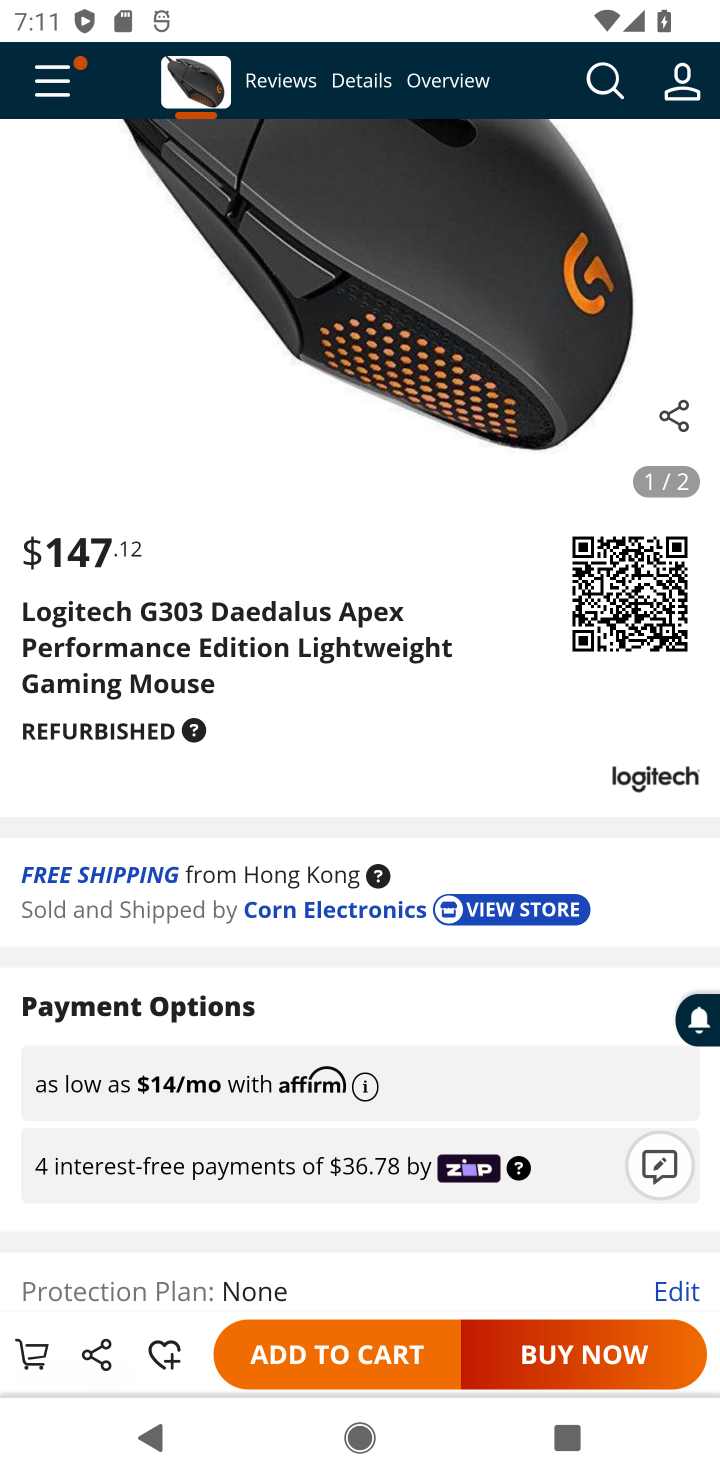
Step 28: click (350, 1351)
Your task to perform on an android device: Add "logitech g903" to the cart on newegg.com, then select checkout. Image 29: 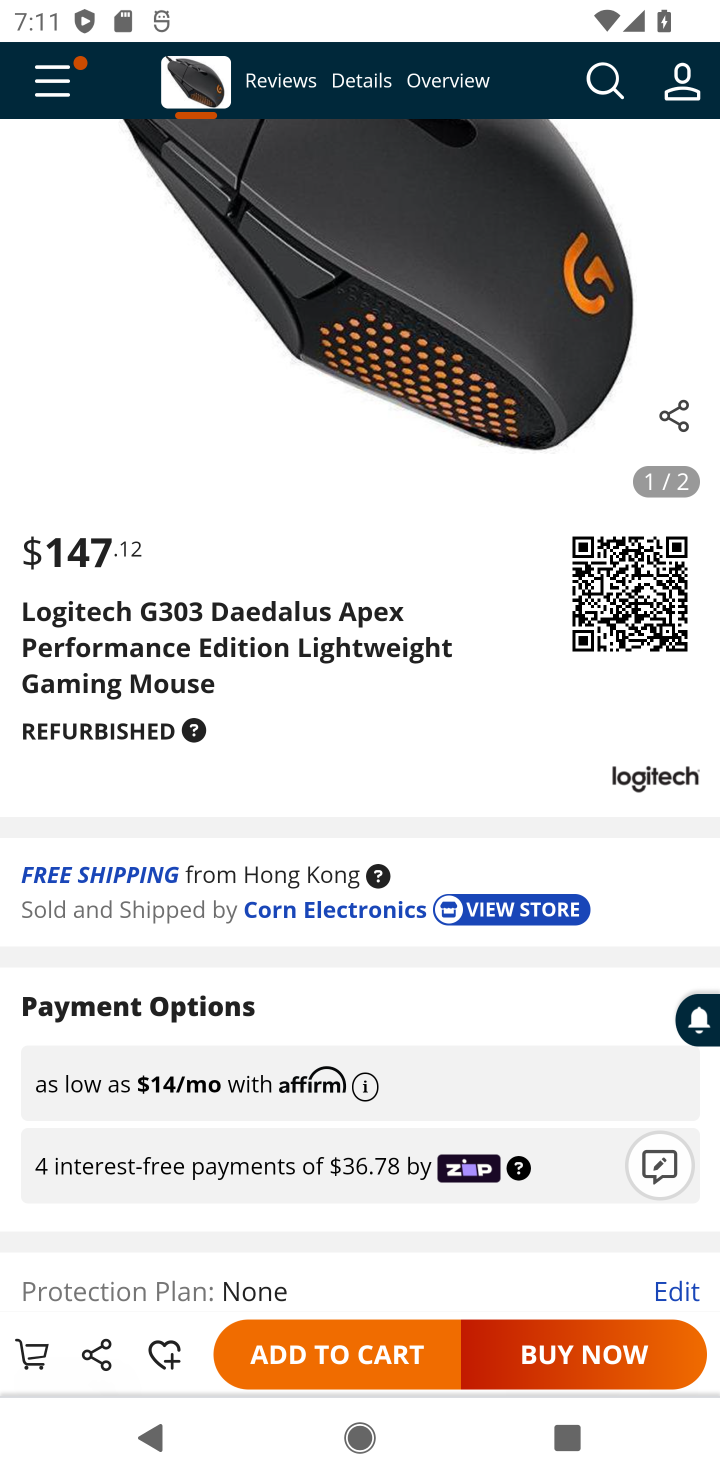
Step 29: click (350, 1351)
Your task to perform on an android device: Add "logitech g903" to the cart on newegg.com, then select checkout. Image 30: 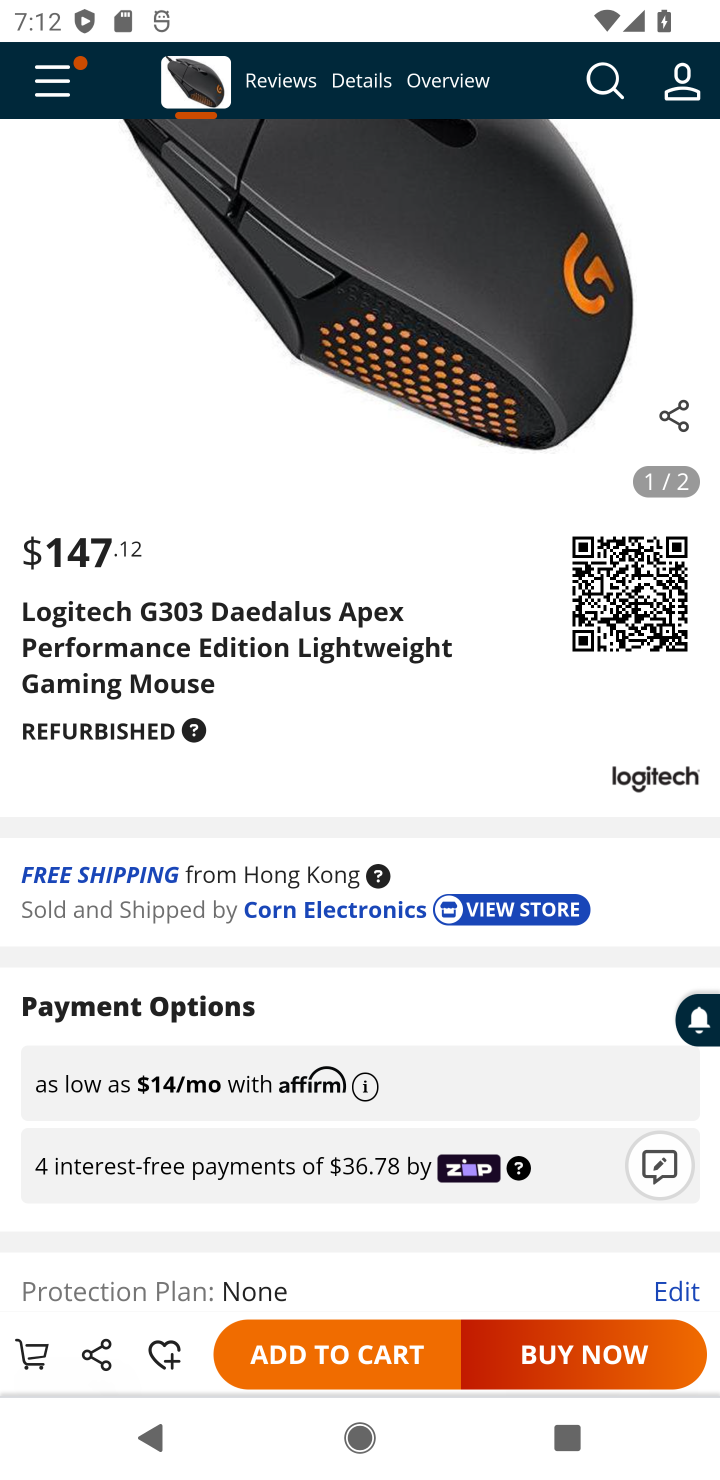
Step 30: click (350, 1351)
Your task to perform on an android device: Add "logitech g903" to the cart on newegg.com, then select checkout. Image 31: 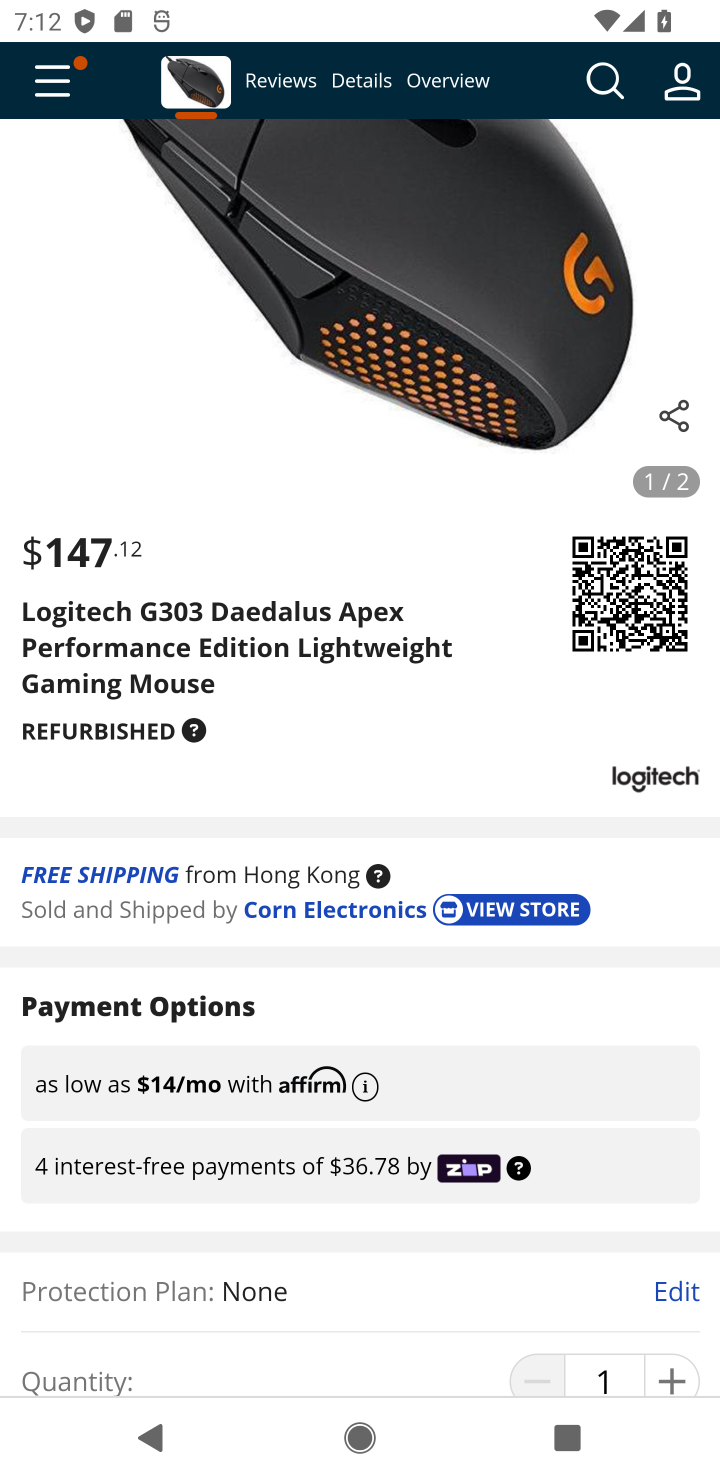
Step 31: task complete